Your task to perform on an android device: turn off priority inbox in the gmail app Image 0: 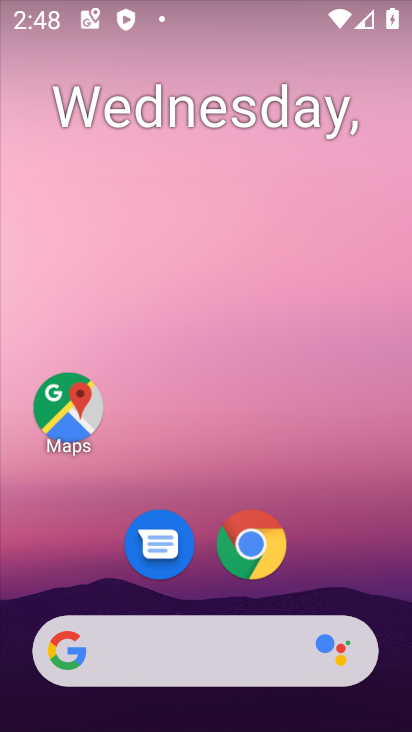
Step 0: drag from (335, 571) to (342, 239)
Your task to perform on an android device: turn off priority inbox in the gmail app Image 1: 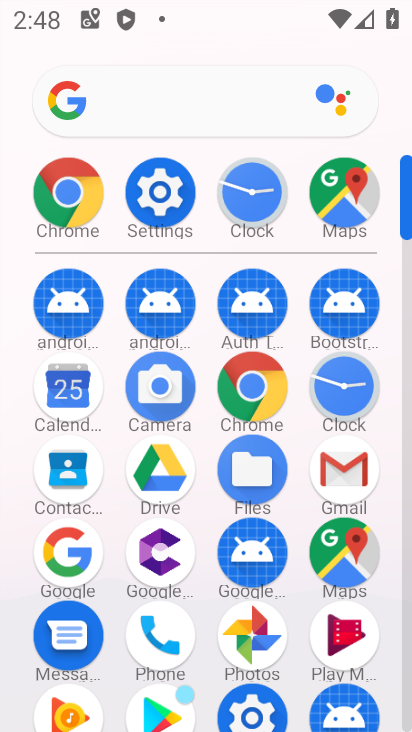
Step 1: click (350, 485)
Your task to perform on an android device: turn off priority inbox in the gmail app Image 2: 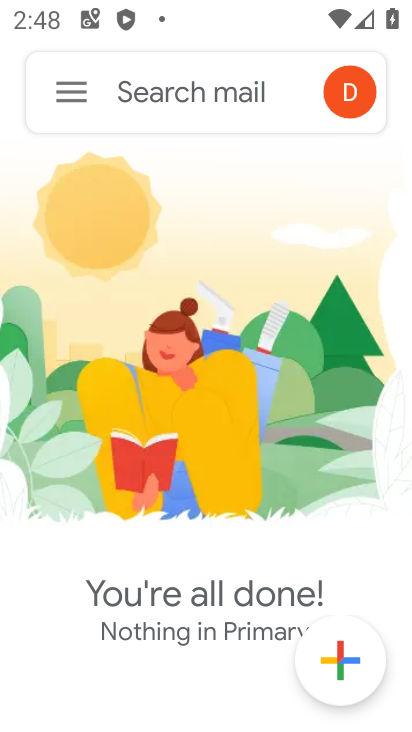
Step 2: click (70, 103)
Your task to perform on an android device: turn off priority inbox in the gmail app Image 3: 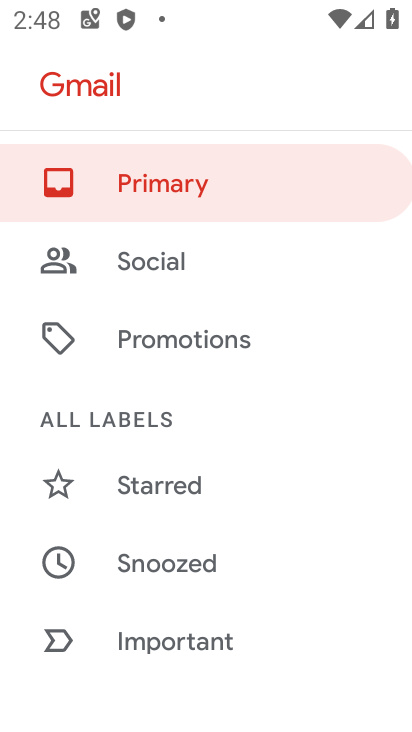
Step 3: drag from (194, 589) to (200, 224)
Your task to perform on an android device: turn off priority inbox in the gmail app Image 4: 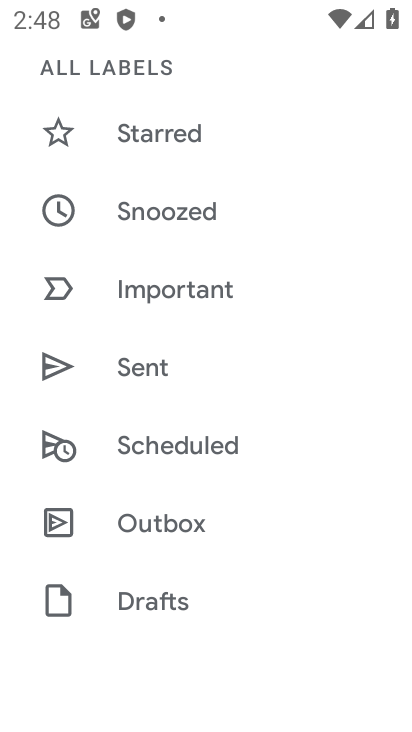
Step 4: drag from (219, 620) to (217, 249)
Your task to perform on an android device: turn off priority inbox in the gmail app Image 5: 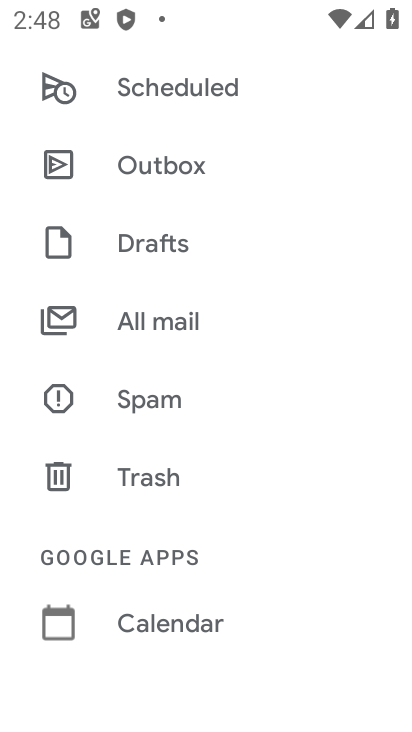
Step 5: drag from (201, 627) to (239, 220)
Your task to perform on an android device: turn off priority inbox in the gmail app Image 6: 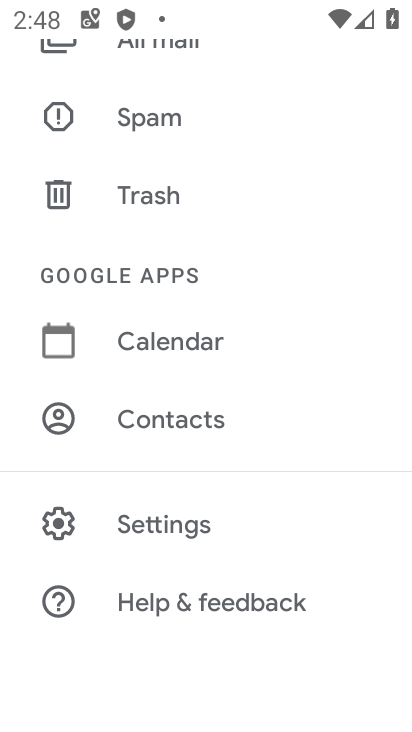
Step 6: drag from (199, 657) to (247, 318)
Your task to perform on an android device: turn off priority inbox in the gmail app Image 7: 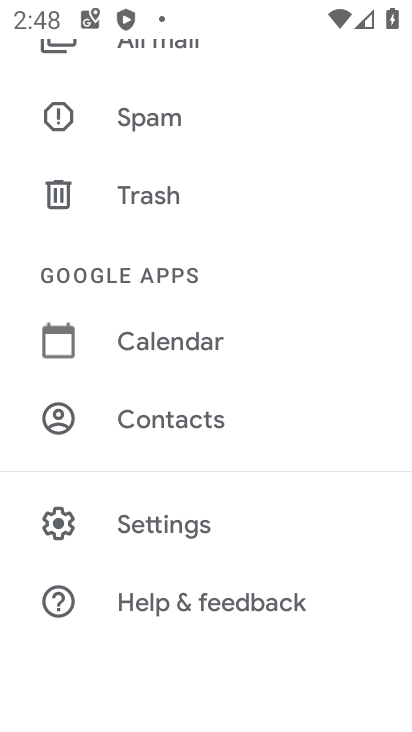
Step 7: click (186, 528)
Your task to perform on an android device: turn off priority inbox in the gmail app Image 8: 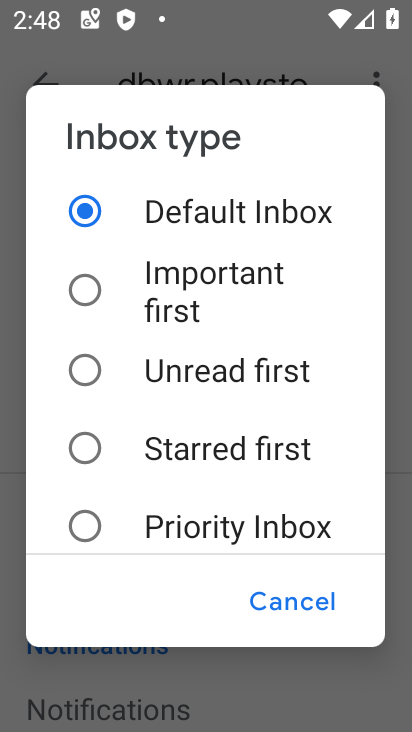
Step 8: task complete